Your task to perform on an android device: Open CNN.com Image 0: 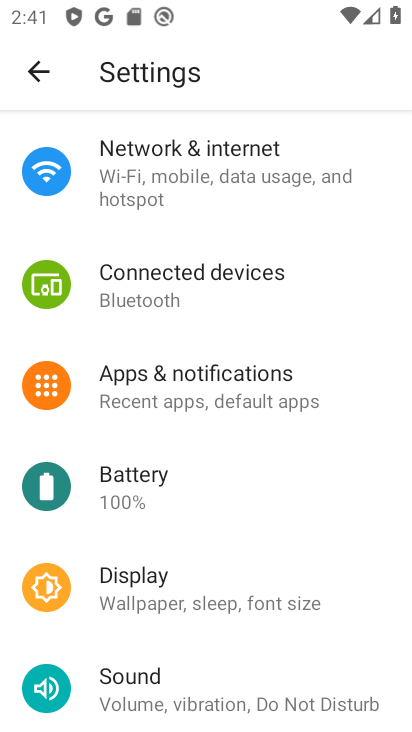
Step 0: press home button
Your task to perform on an android device: Open CNN.com Image 1: 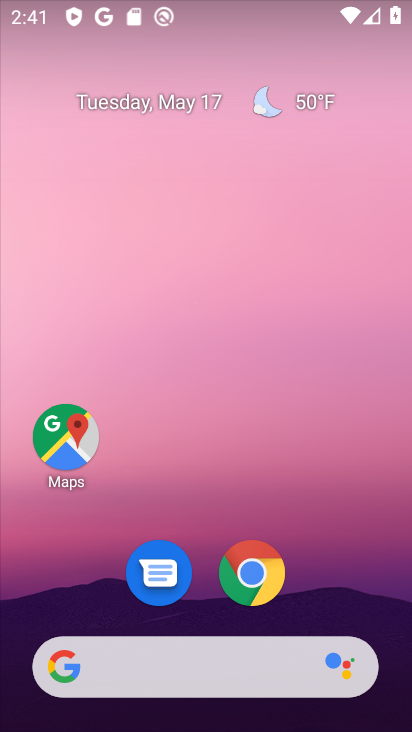
Step 1: click (263, 576)
Your task to perform on an android device: Open CNN.com Image 2: 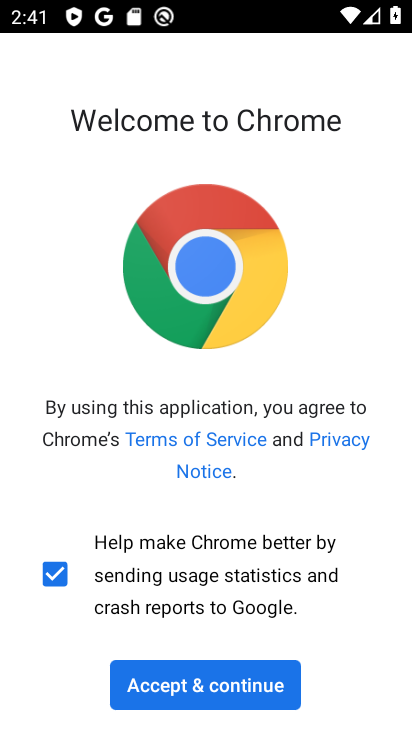
Step 2: click (200, 686)
Your task to perform on an android device: Open CNN.com Image 3: 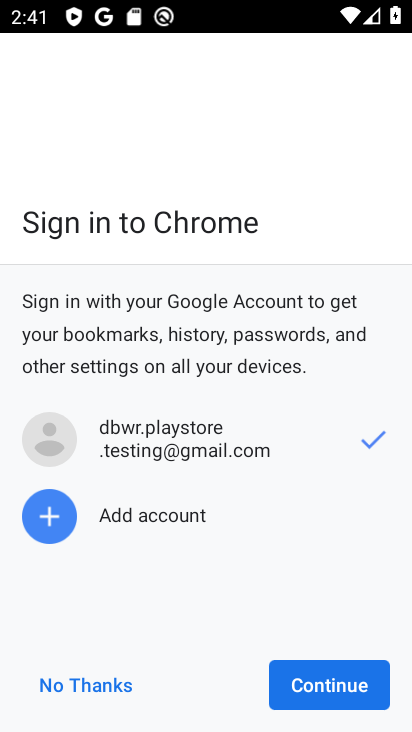
Step 3: click (367, 672)
Your task to perform on an android device: Open CNN.com Image 4: 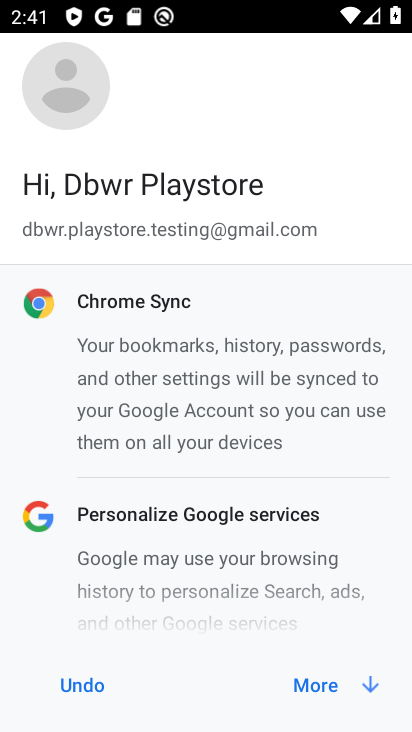
Step 4: click (355, 681)
Your task to perform on an android device: Open CNN.com Image 5: 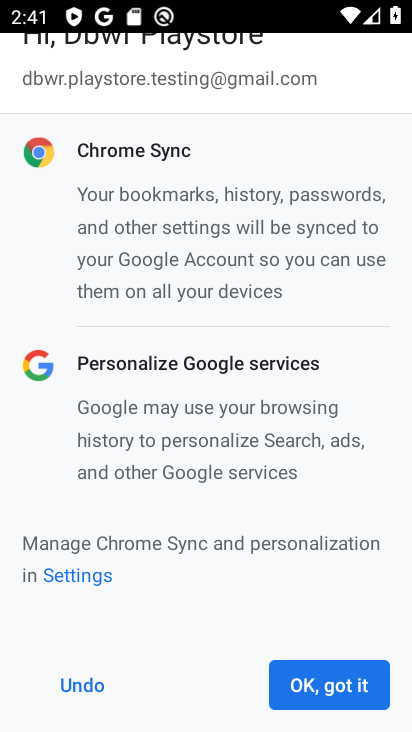
Step 5: click (368, 683)
Your task to perform on an android device: Open CNN.com Image 6: 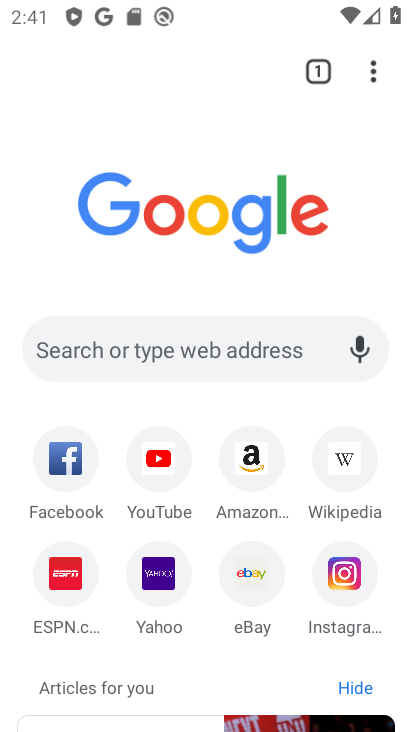
Step 6: click (234, 350)
Your task to perform on an android device: Open CNN.com Image 7: 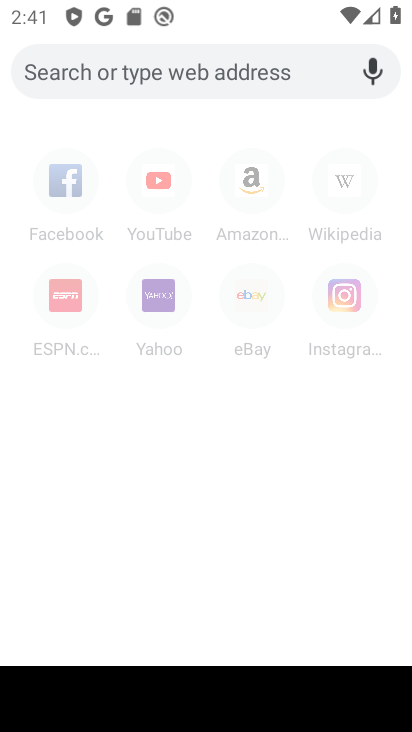
Step 7: type "cnn.com"
Your task to perform on an android device: Open CNN.com Image 8: 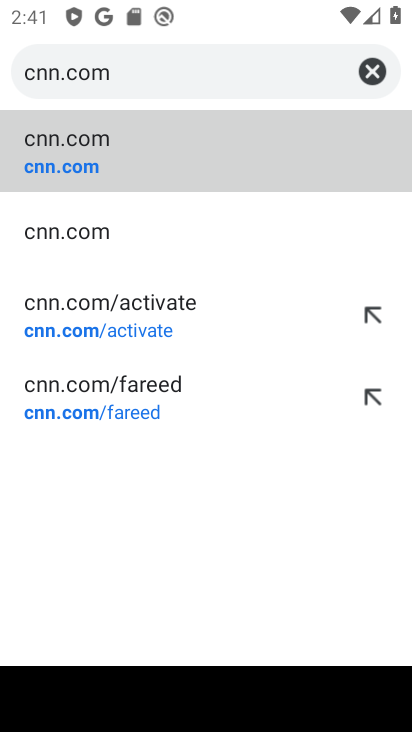
Step 8: click (56, 166)
Your task to perform on an android device: Open CNN.com Image 9: 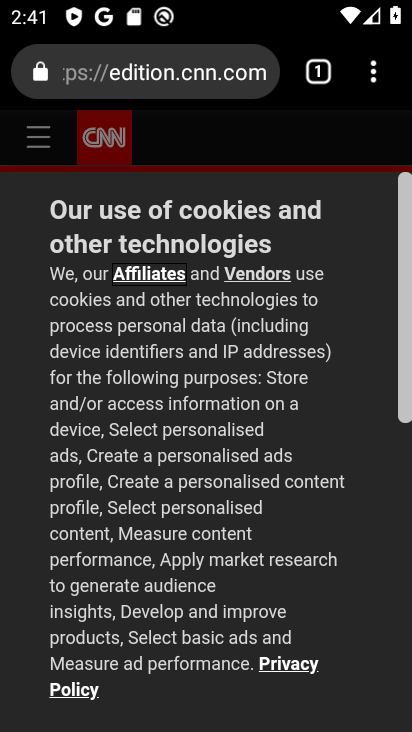
Step 9: task complete